Your task to perform on an android device: Open Youtube and go to "Your channel" Image 0: 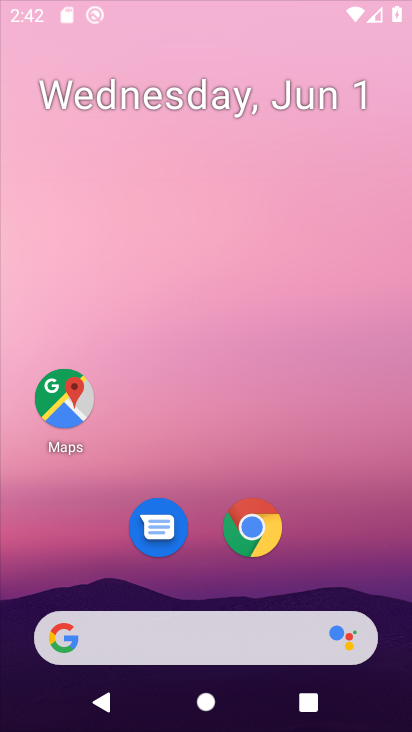
Step 0: click (341, 417)
Your task to perform on an android device: Open Youtube and go to "Your channel" Image 1: 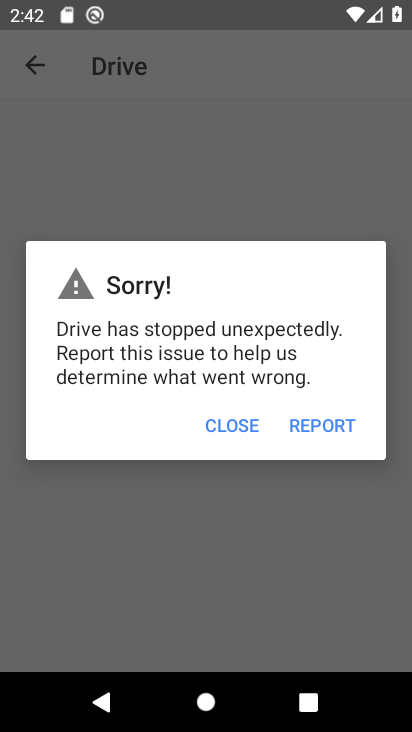
Step 1: press home button
Your task to perform on an android device: Open Youtube and go to "Your channel" Image 2: 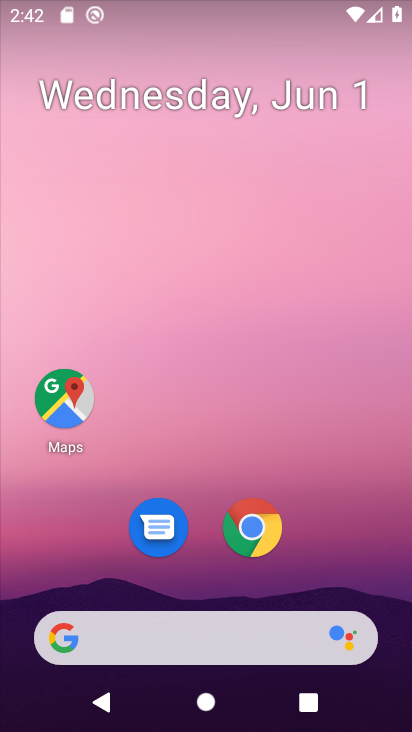
Step 2: drag from (198, 582) to (252, 337)
Your task to perform on an android device: Open Youtube and go to "Your channel" Image 3: 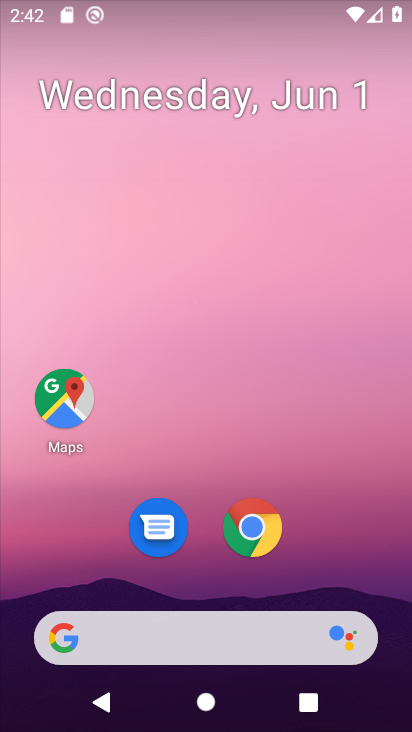
Step 3: drag from (183, 612) to (208, 113)
Your task to perform on an android device: Open Youtube and go to "Your channel" Image 4: 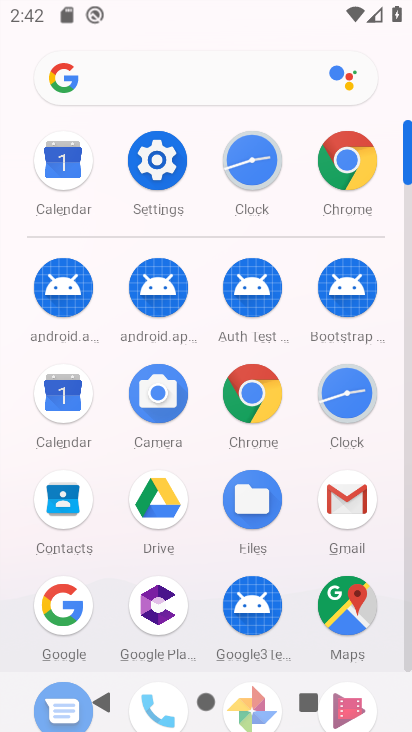
Step 4: drag from (213, 567) to (257, 233)
Your task to perform on an android device: Open Youtube and go to "Your channel" Image 5: 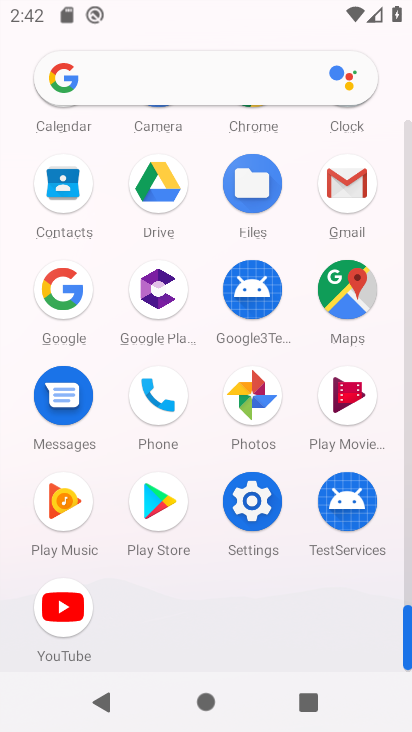
Step 5: click (57, 611)
Your task to perform on an android device: Open Youtube and go to "Your channel" Image 6: 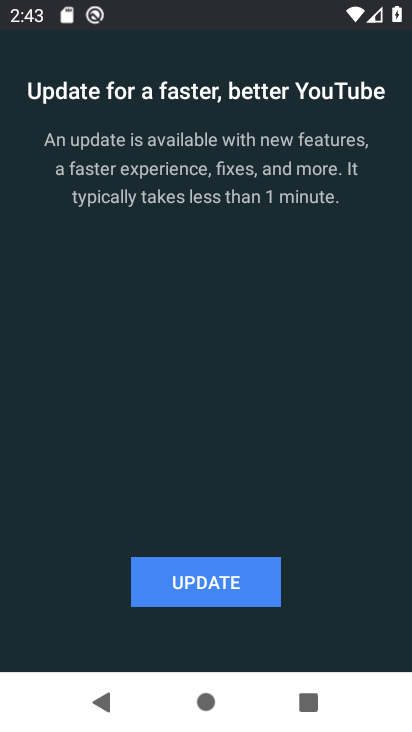
Step 6: click (200, 585)
Your task to perform on an android device: Open Youtube and go to "Your channel" Image 7: 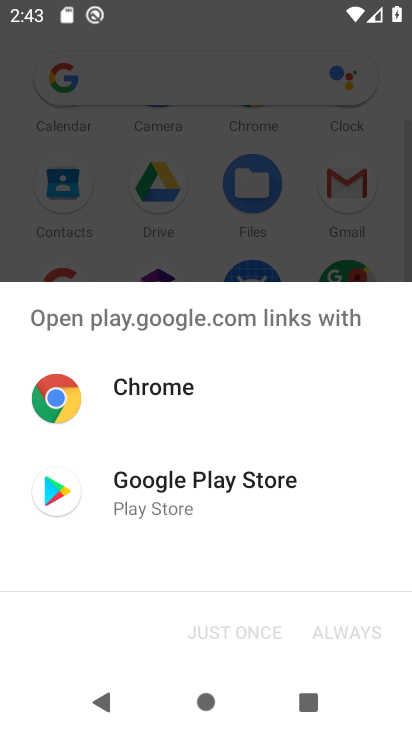
Step 7: click (166, 482)
Your task to perform on an android device: Open Youtube and go to "Your channel" Image 8: 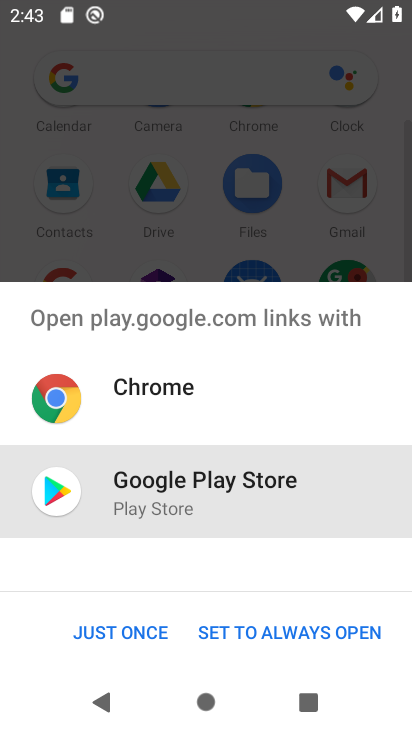
Step 8: click (150, 637)
Your task to perform on an android device: Open Youtube and go to "Your channel" Image 9: 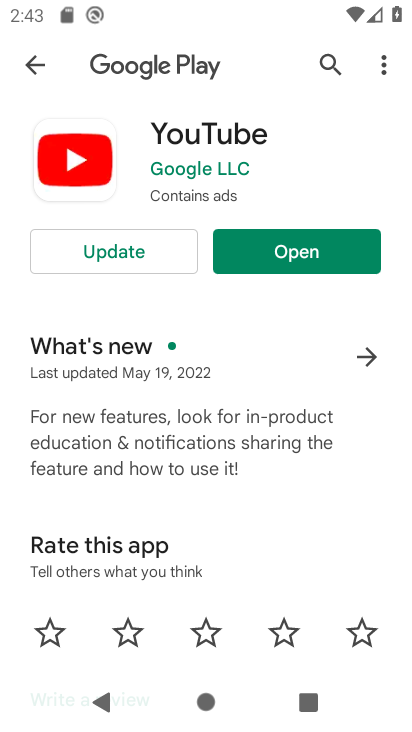
Step 9: click (143, 251)
Your task to perform on an android device: Open Youtube and go to "Your channel" Image 10: 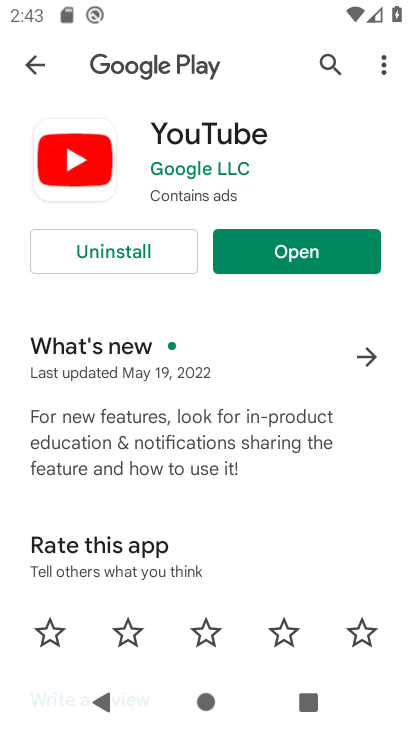
Step 10: click (288, 255)
Your task to perform on an android device: Open Youtube and go to "Your channel" Image 11: 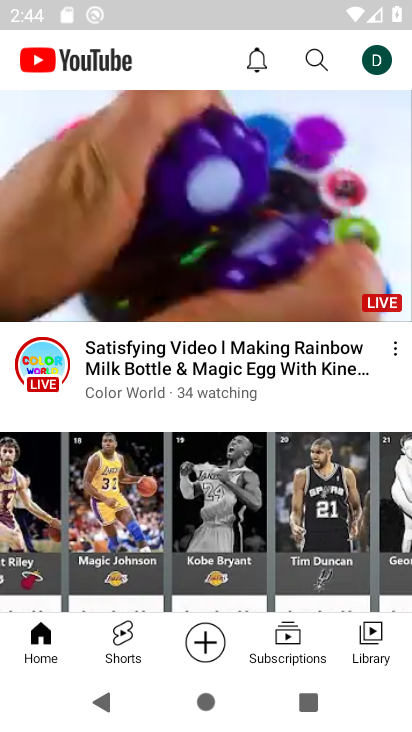
Step 11: click (374, 57)
Your task to perform on an android device: Open Youtube and go to "Your channel" Image 12: 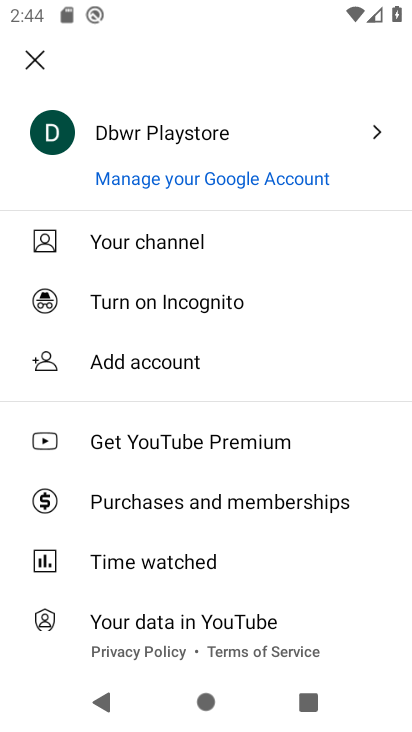
Step 12: click (143, 238)
Your task to perform on an android device: Open Youtube and go to "Your channel" Image 13: 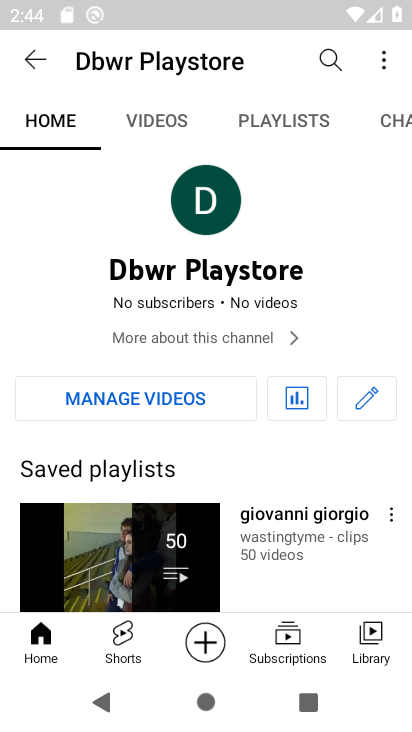
Step 13: task complete